Your task to perform on an android device: install app "Life360: Find Family & Friends" Image 0: 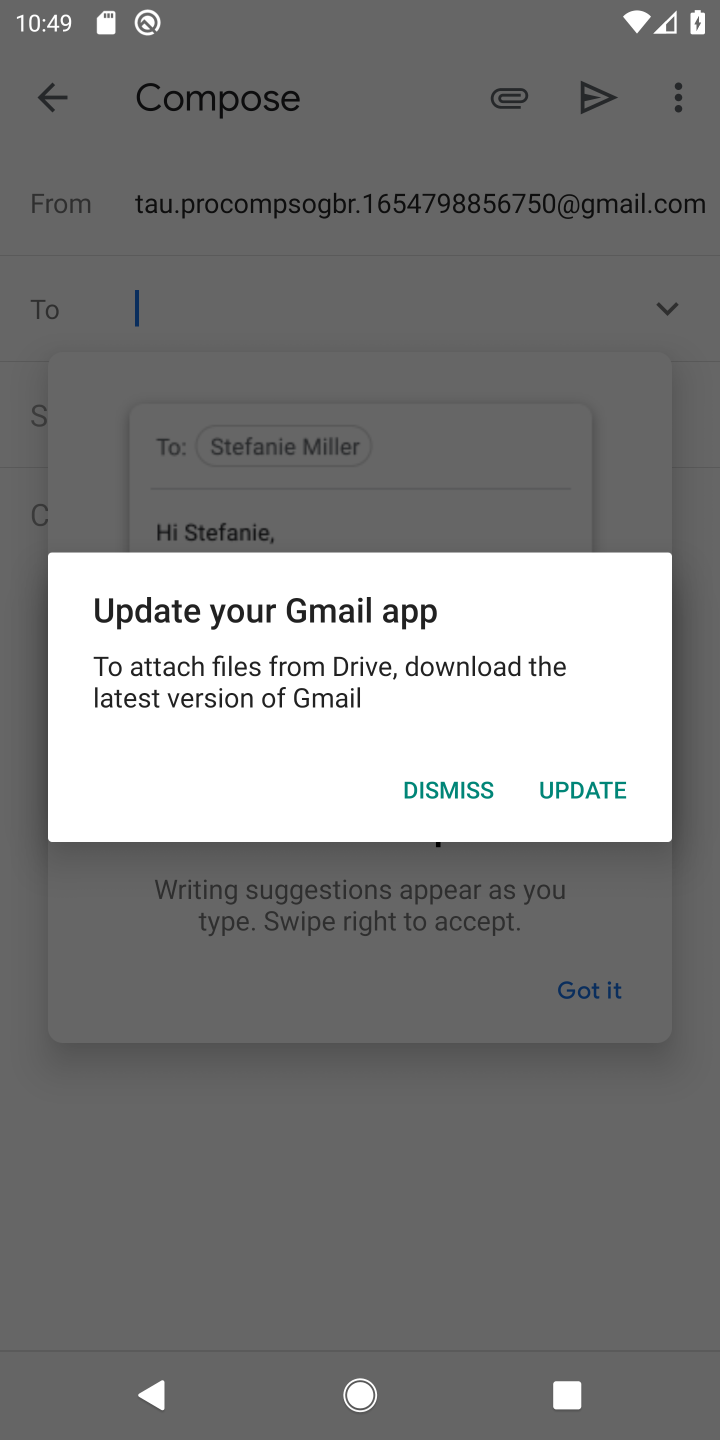
Step 0: press home button
Your task to perform on an android device: install app "Life360: Find Family & Friends" Image 1: 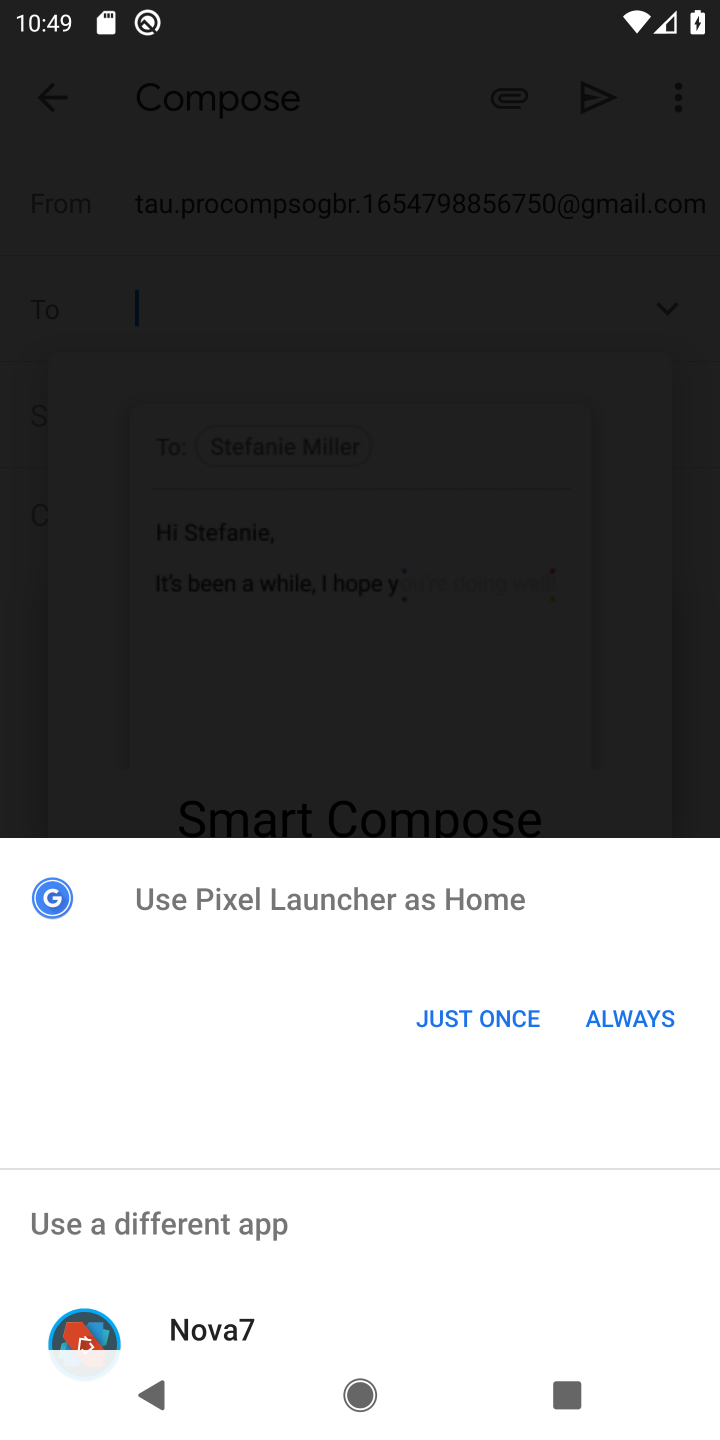
Step 1: press home button
Your task to perform on an android device: install app "Life360: Find Family & Friends" Image 2: 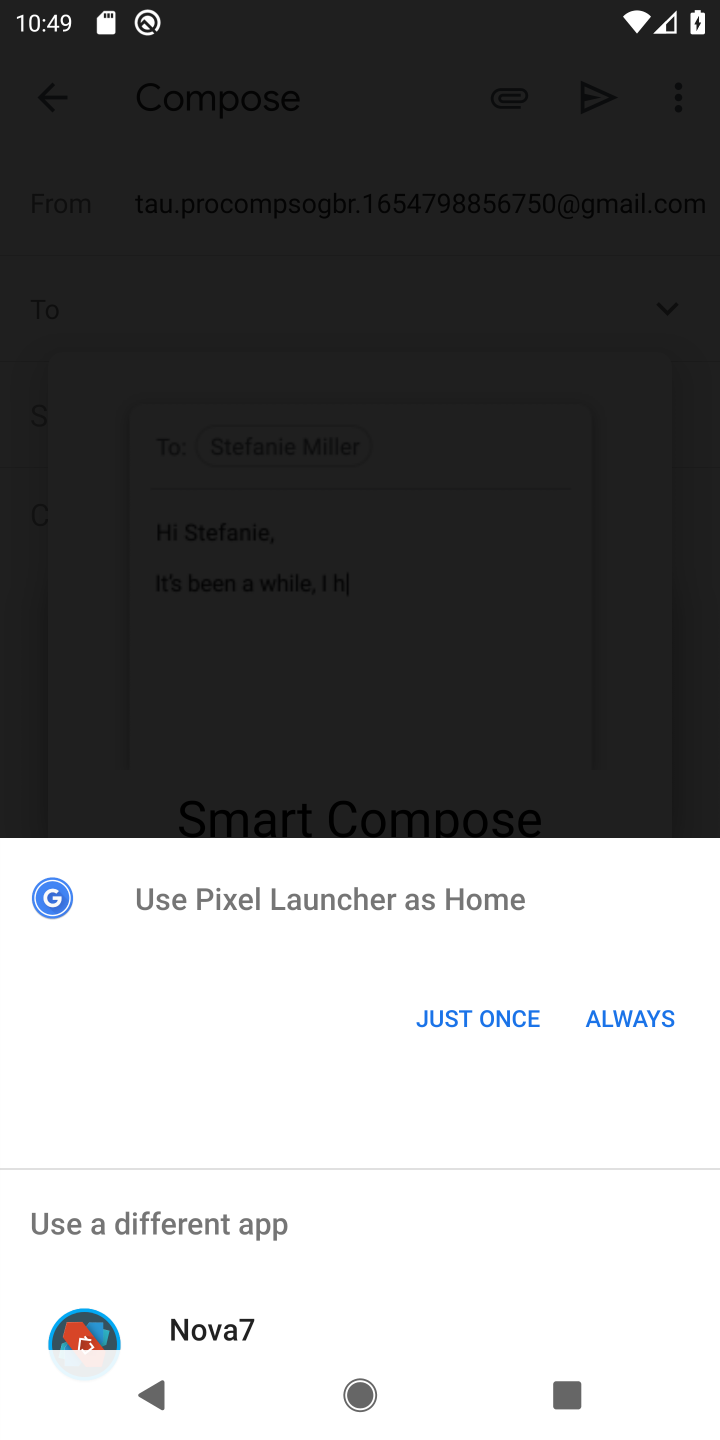
Step 2: click (489, 1010)
Your task to perform on an android device: install app "Life360: Find Family & Friends" Image 3: 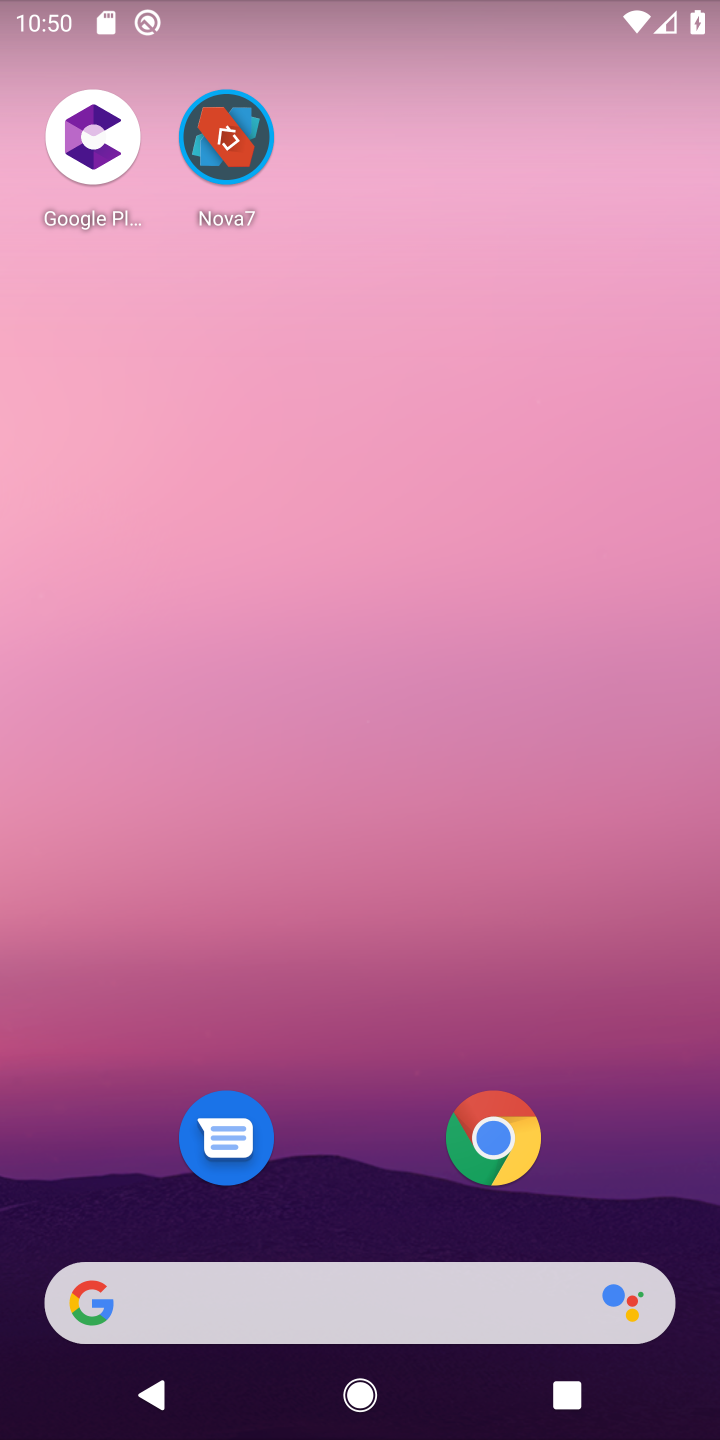
Step 3: drag from (311, 1262) to (504, 273)
Your task to perform on an android device: install app "Life360: Find Family & Friends" Image 4: 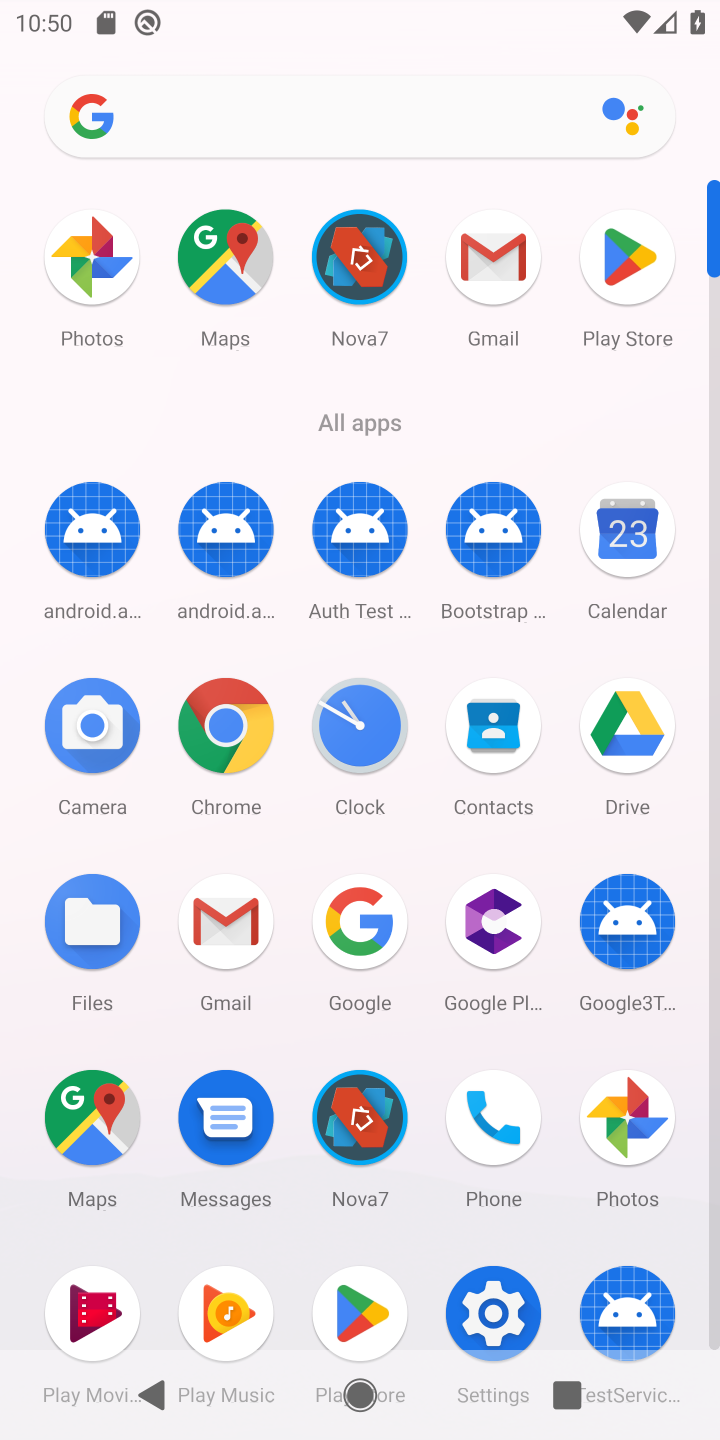
Step 4: click (617, 244)
Your task to perform on an android device: install app "Life360: Find Family & Friends" Image 5: 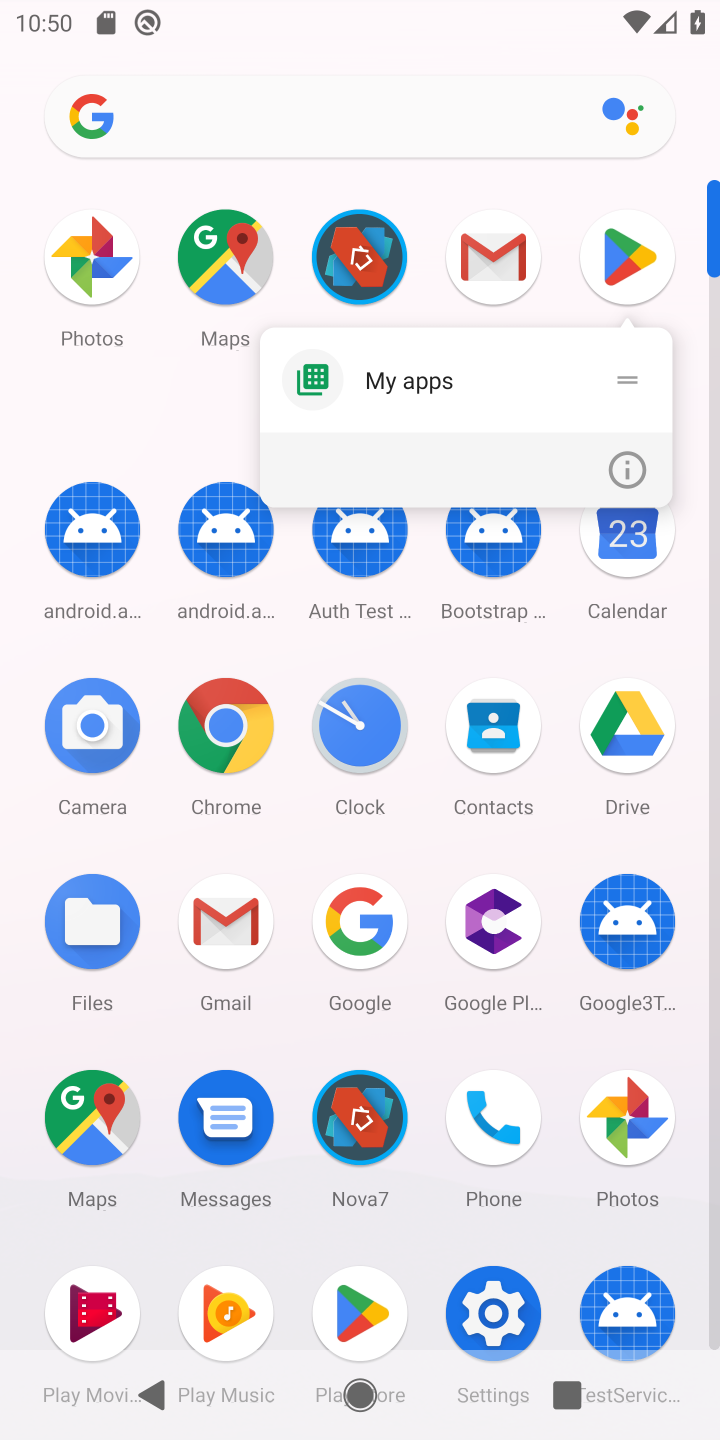
Step 5: click (622, 269)
Your task to perform on an android device: install app "Life360: Find Family & Friends" Image 6: 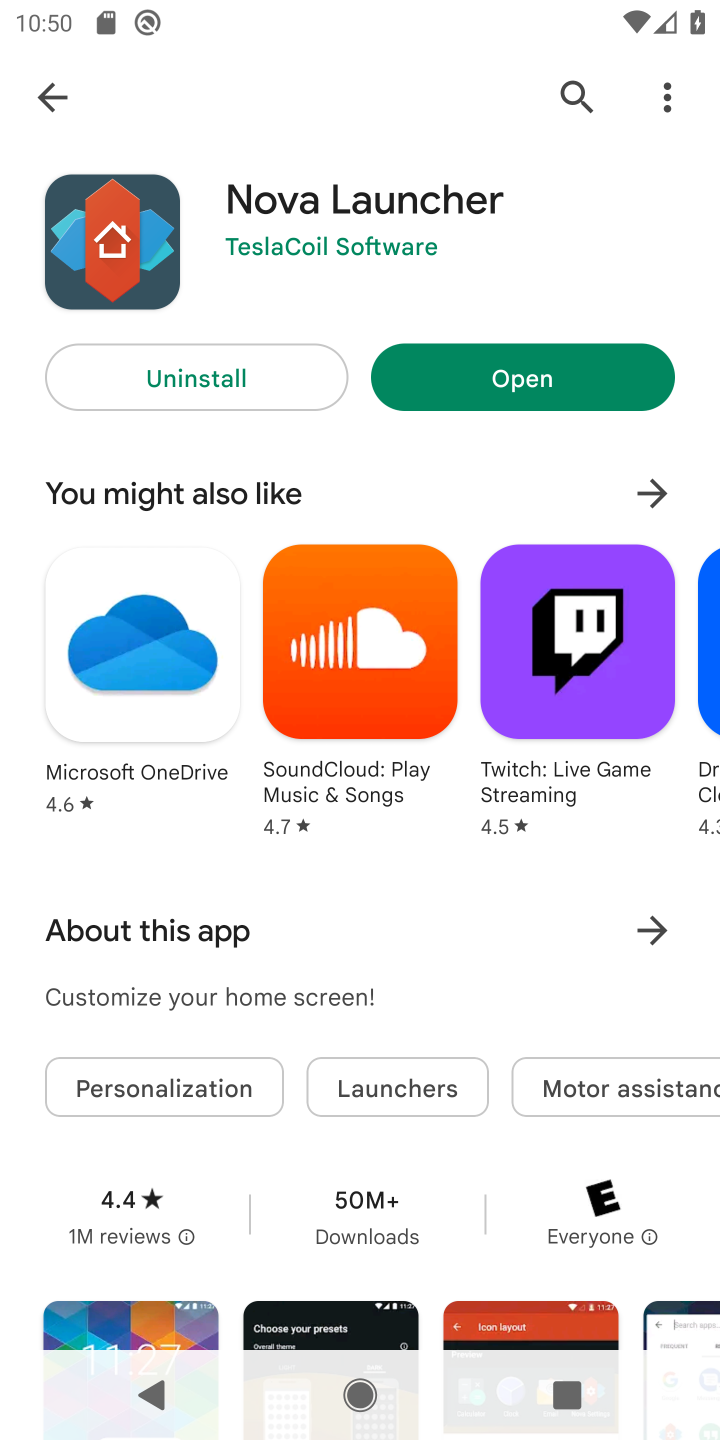
Step 6: click (576, 89)
Your task to perform on an android device: install app "Life360: Find Family & Friends" Image 7: 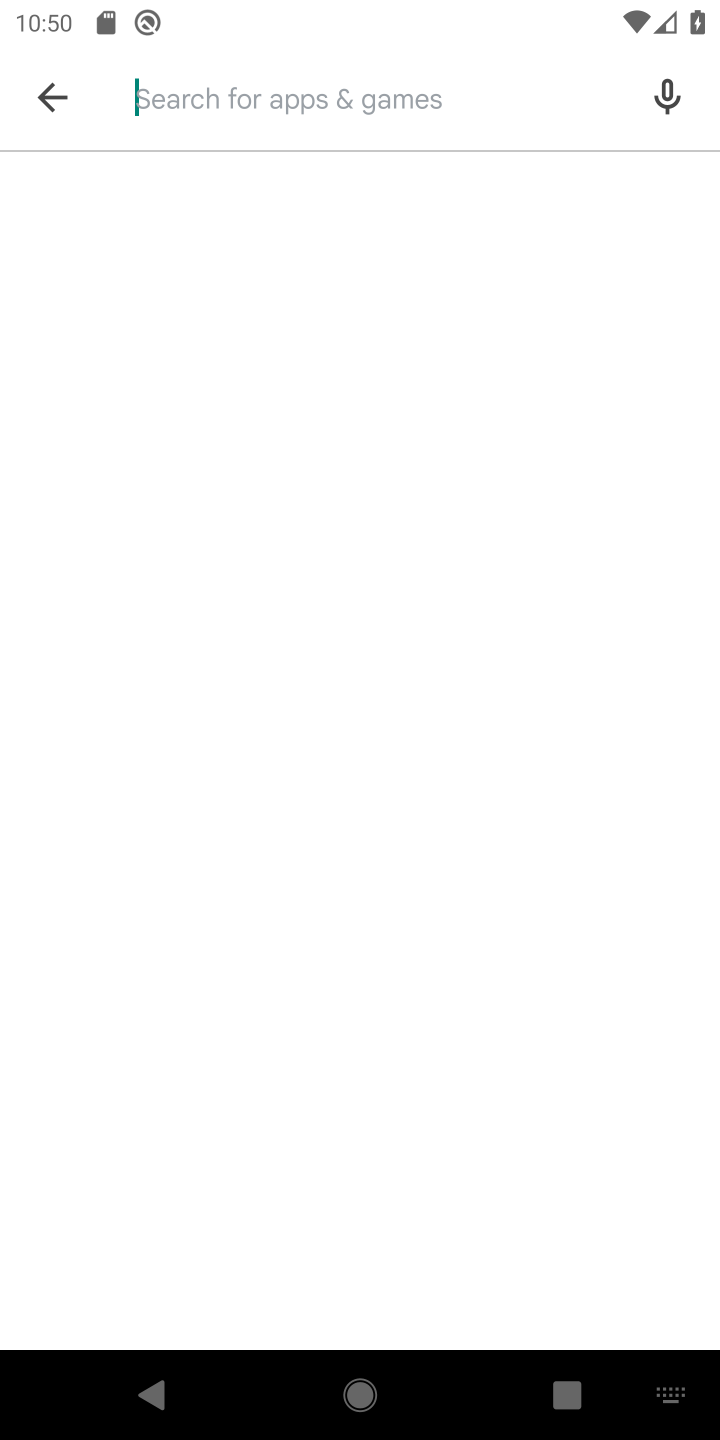
Step 7: type "Life360: Find Family & Friends"
Your task to perform on an android device: install app "Life360: Find Family & Friends" Image 8: 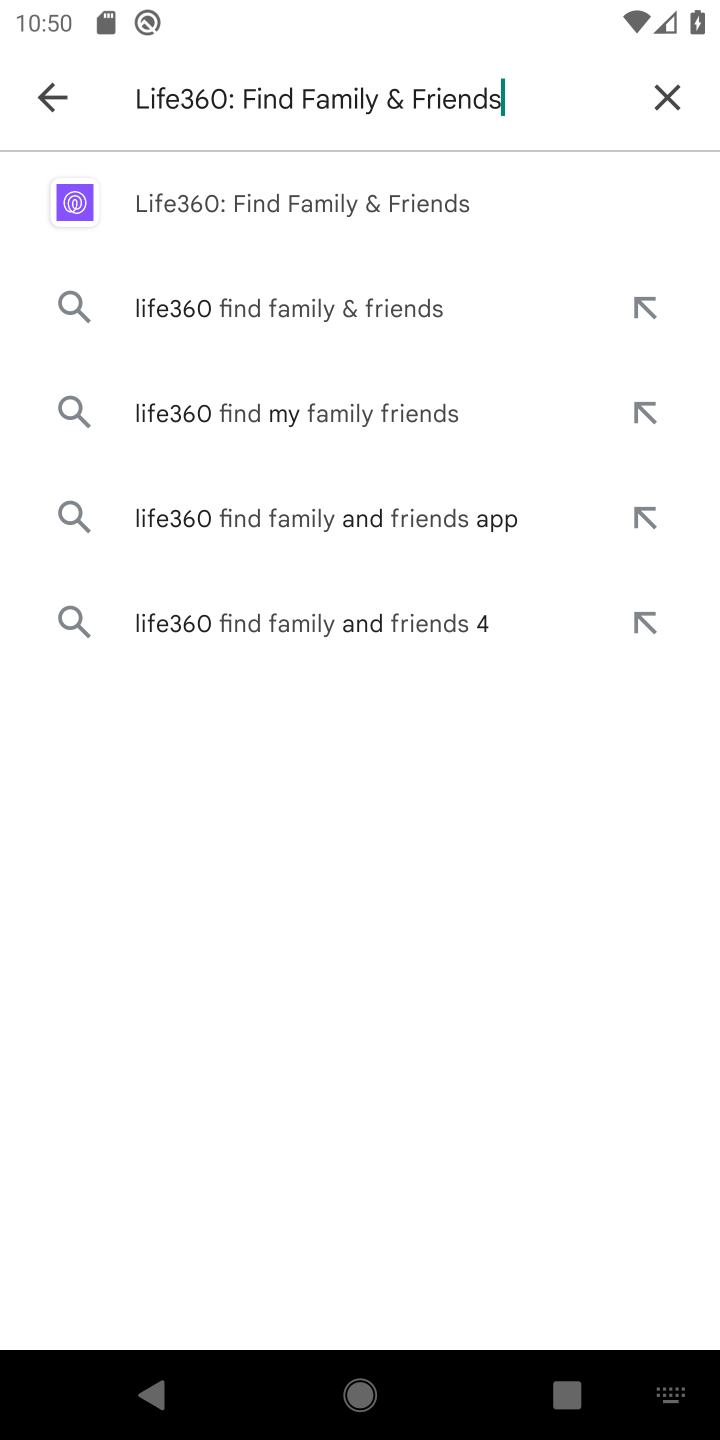
Step 8: click (212, 207)
Your task to perform on an android device: install app "Life360: Find Family & Friends" Image 9: 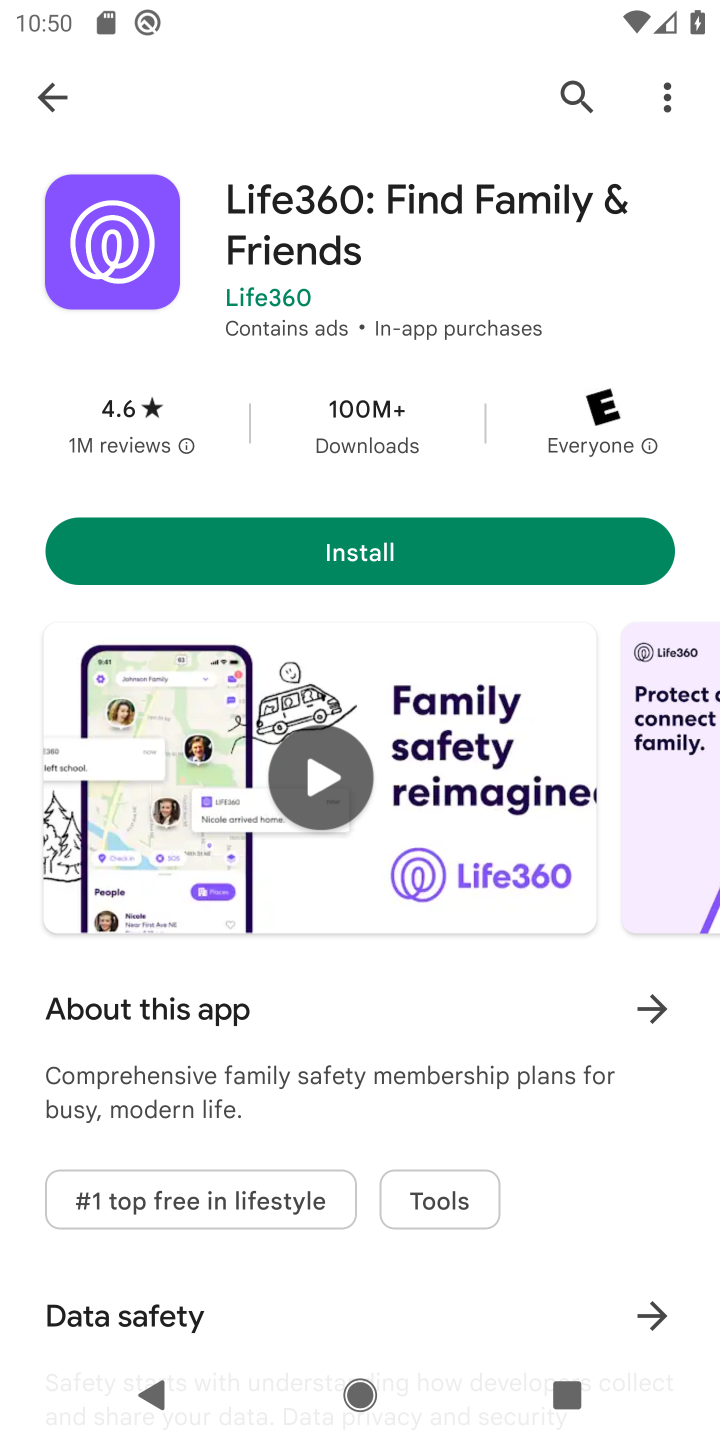
Step 9: click (360, 547)
Your task to perform on an android device: install app "Life360: Find Family & Friends" Image 10: 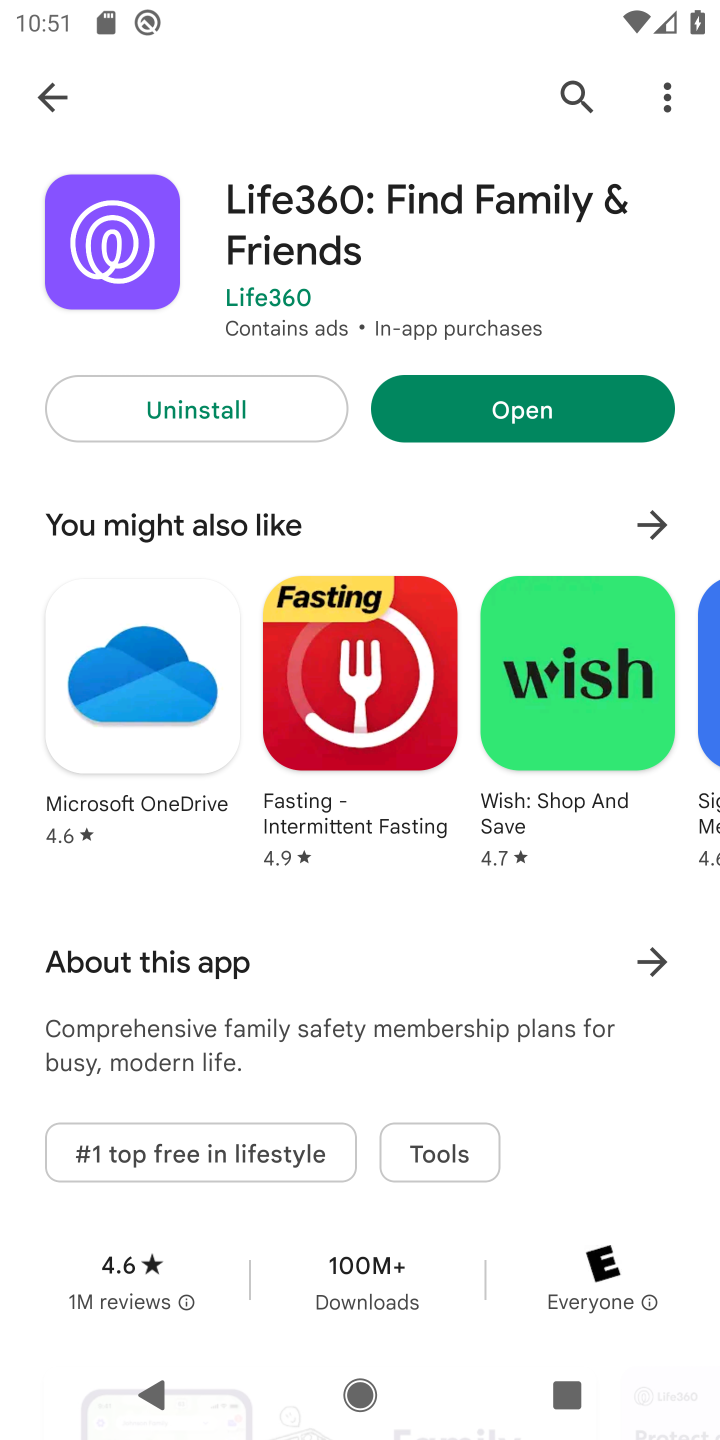
Step 10: click (511, 417)
Your task to perform on an android device: install app "Life360: Find Family & Friends" Image 11: 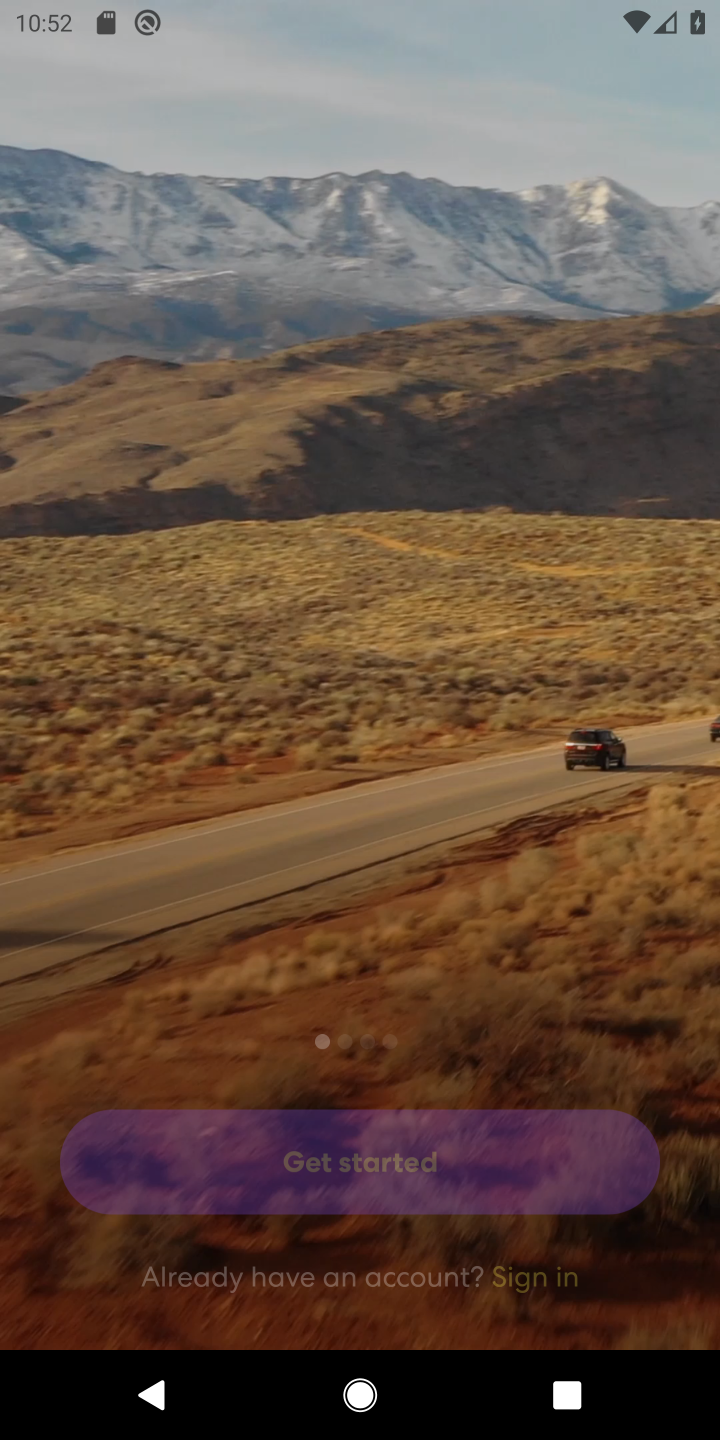
Step 11: task complete